Your task to perform on an android device: Go to accessibility settings Image 0: 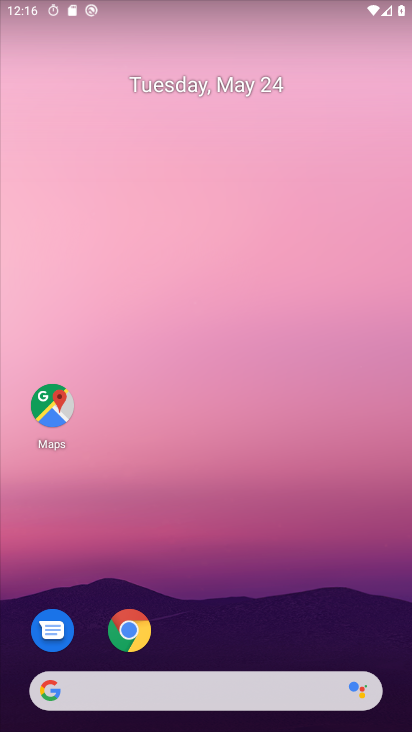
Step 0: drag from (182, 649) to (251, 69)
Your task to perform on an android device: Go to accessibility settings Image 1: 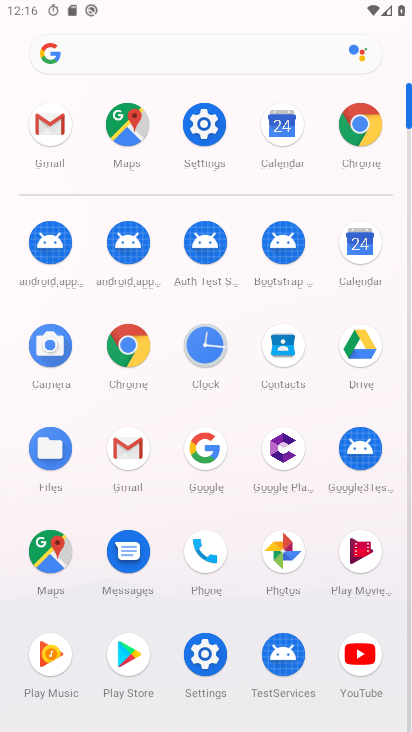
Step 1: click (219, 136)
Your task to perform on an android device: Go to accessibility settings Image 2: 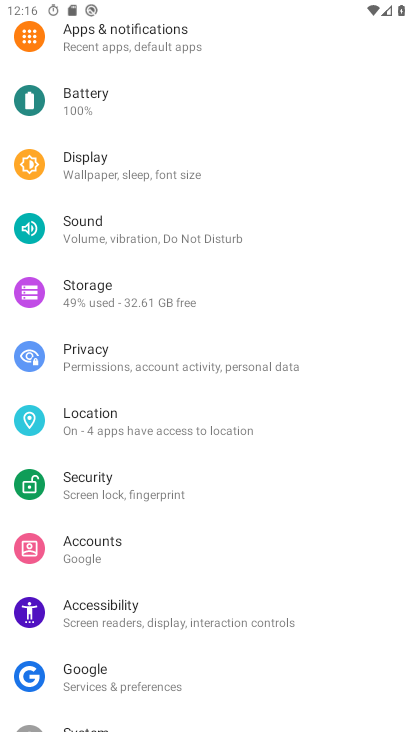
Step 2: drag from (217, 170) to (222, 666)
Your task to perform on an android device: Go to accessibility settings Image 3: 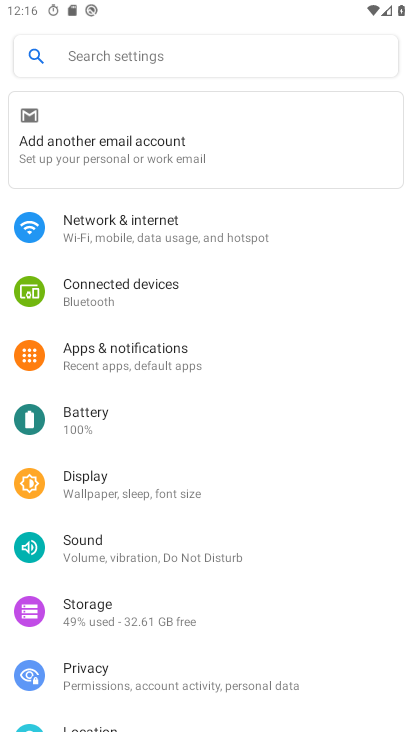
Step 3: drag from (133, 625) to (248, 157)
Your task to perform on an android device: Go to accessibility settings Image 4: 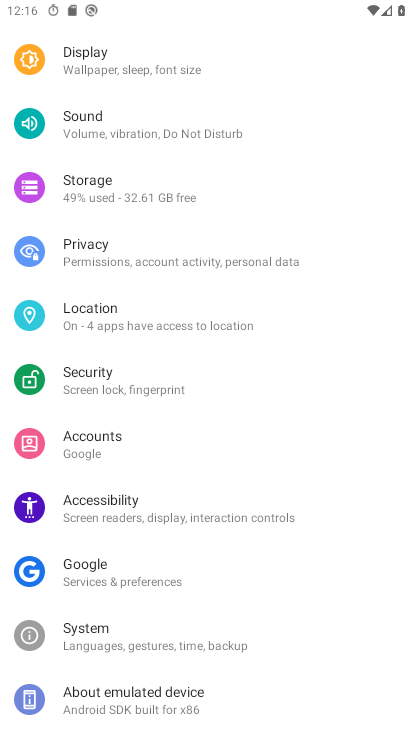
Step 4: drag from (167, 600) to (221, 302)
Your task to perform on an android device: Go to accessibility settings Image 5: 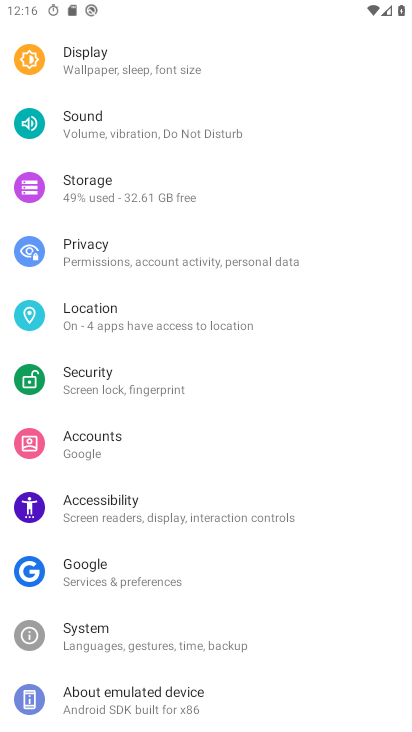
Step 5: click (168, 509)
Your task to perform on an android device: Go to accessibility settings Image 6: 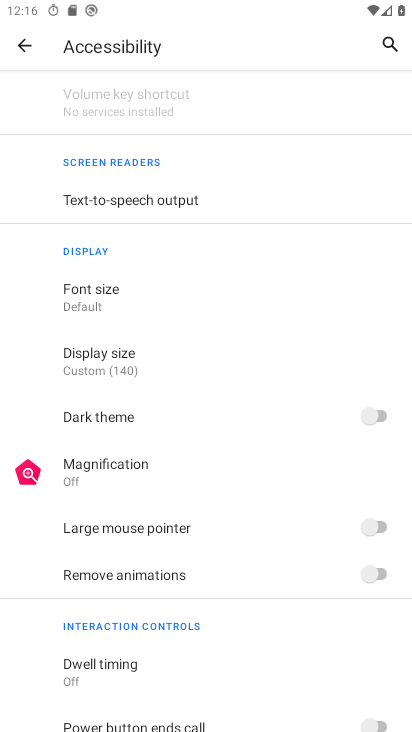
Step 6: task complete